Your task to perform on an android device: change notification settings in the gmail app Image 0: 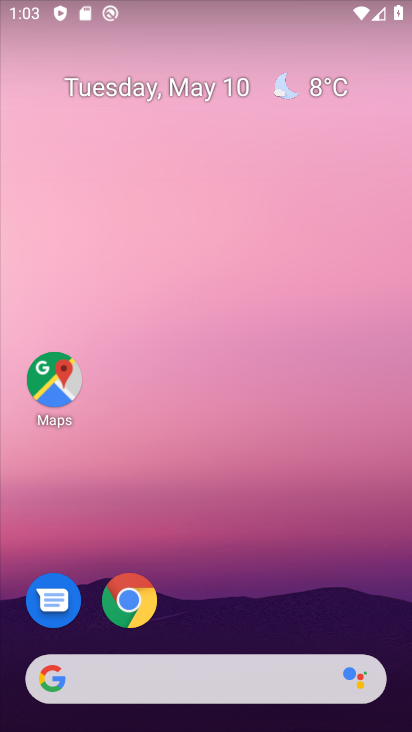
Step 0: drag from (228, 622) to (262, 41)
Your task to perform on an android device: change notification settings in the gmail app Image 1: 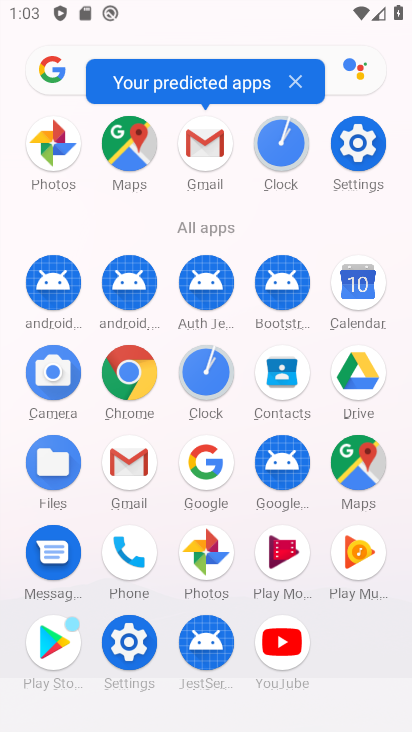
Step 1: click (199, 136)
Your task to perform on an android device: change notification settings in the gmail app Image 2: 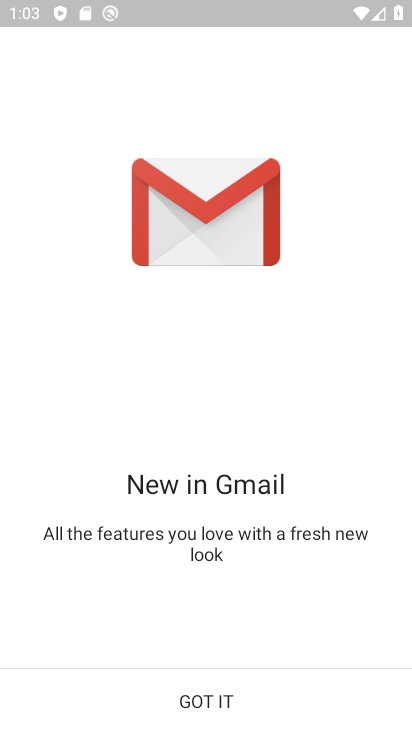
Step 2: click (210, 700)
Your task to perform on an android device: change notification settings in the gmail app Image 3: 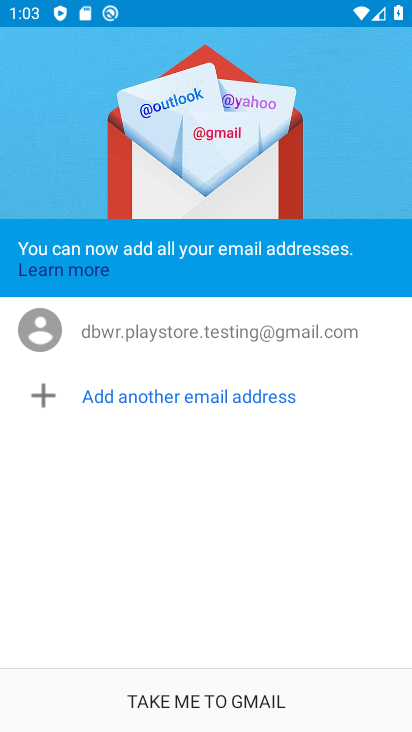
Step 3: click (199, 707)
Your task to perform on an android device: change notification settings in the gmail app Image 4: 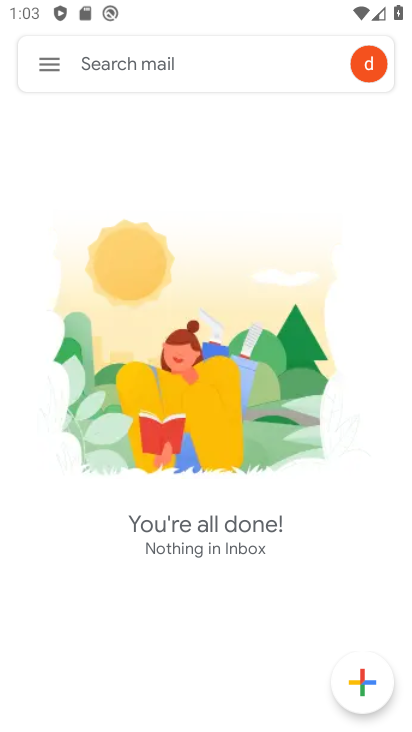
Step 4: click (45, 60)
Your task to perform on an android device: change notification settings in the gmail app Image 5: 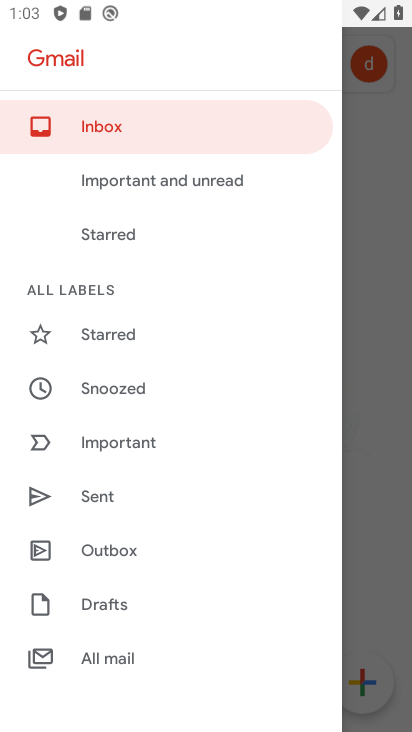
Step 5: drag from (153, 601) to (137, 413)
Your task to perform on an android device: change notification settings in the gmail app Image 6: 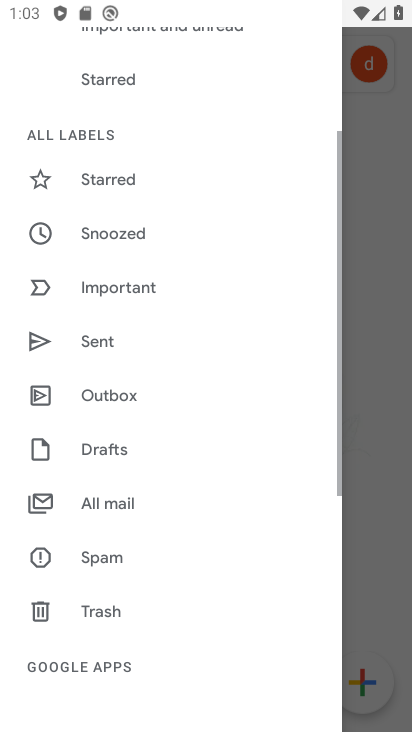
Step 6: drag from (132, 320) to (126, 150)
Your task to perform on an android device: change notification settings in the gmail app Image 7: 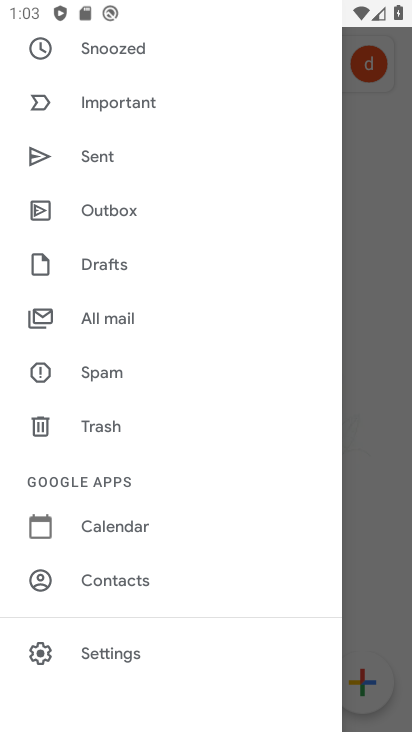
Step 7: click (142, 643)
Your task to perform on an android device: change notification settings in the gmail app Image 8: 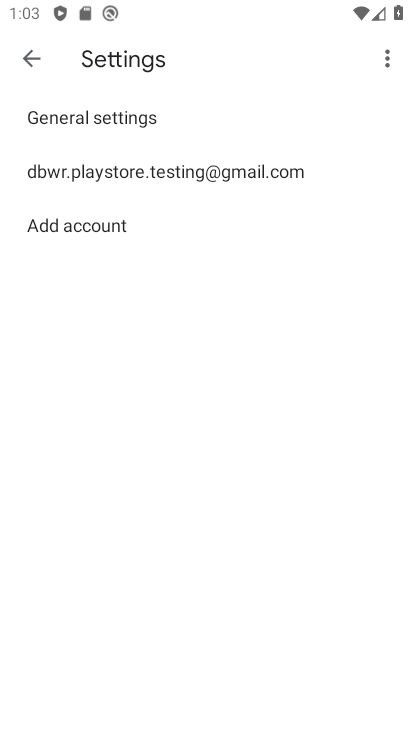
Step 8: click (160, 110)
Your task to perform on an android device: change notification settings in the gmail app Image 9: 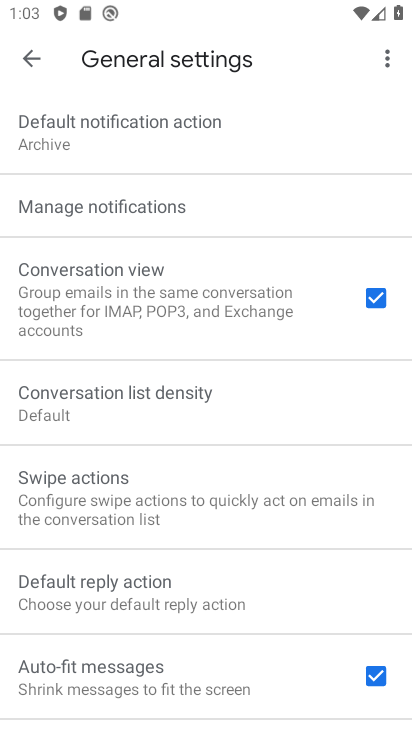
Step 9: click (198, 203)
Your task to perform on an android device: change notification settings in the gmail app Image 10: 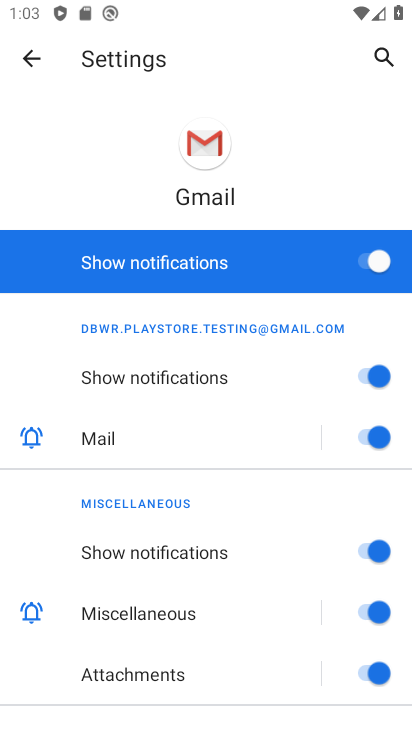
Step 10: click (369, 257)
Your task to perform on an android device: change notification settings in the gmail app Image 11: 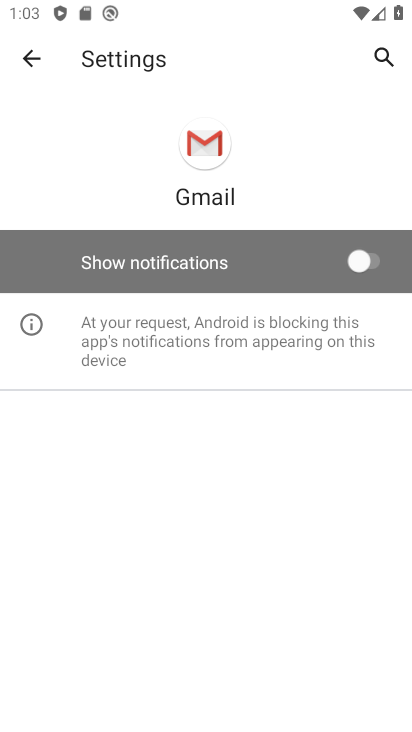
Step 11: task complete